Your task to perform on an android device: change notification settings in the gmail app Image 0: 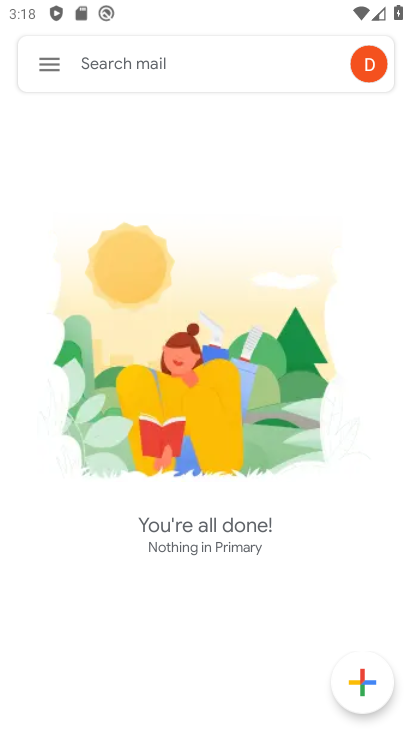
Step 0: click (39, 66)
Your task to perform on an android device: change notification settings in the gmail app Image 1: 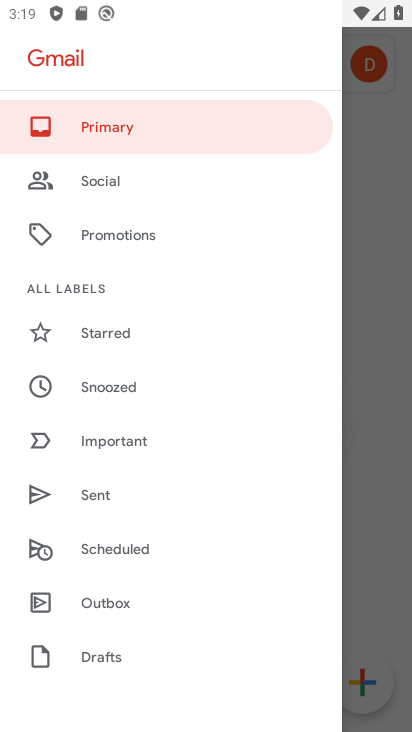
Step 1: drag from (174, 637) to (153, 347)
Your task to perform on an android device: change notification settings in the gmail app Image 2: 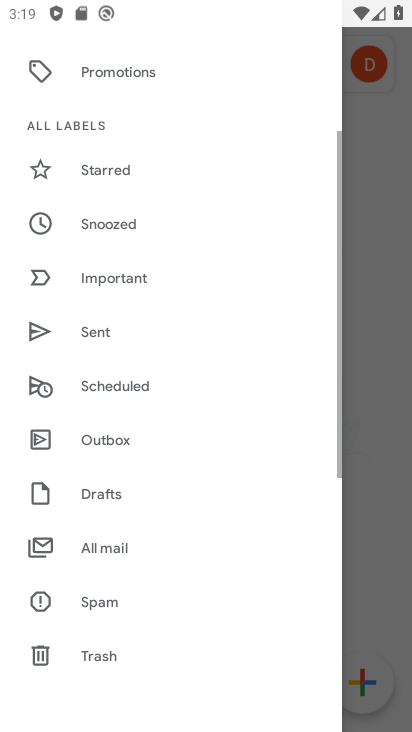
Step 2: drag from (214, 627) to (159, 197)
Your task to perform on an android device: change notification settings in the gmail app Image 3: 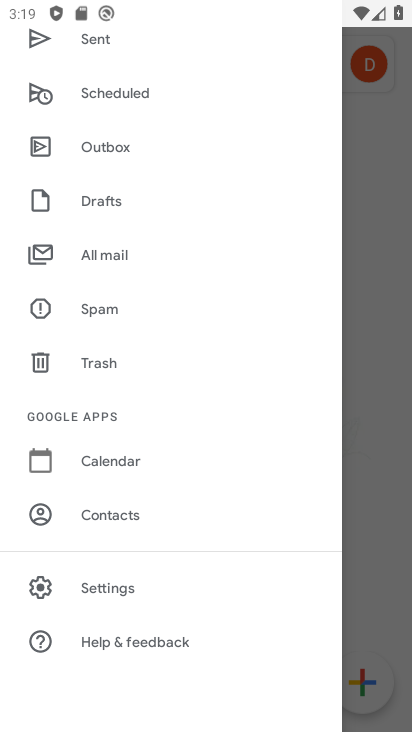
Step 3: click (114, 582)
Your task to perform on an android device: change notification settings in the gmail app Image 4: 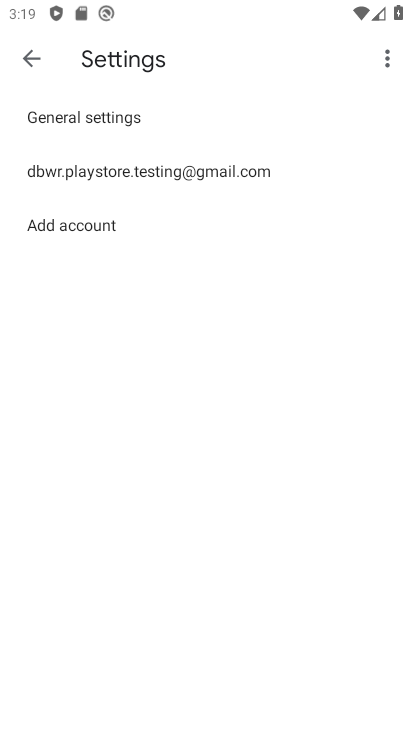
Step 4: click (126, 174)
Your task to perform on an android device: change notification settings in the gmail app Image 5: 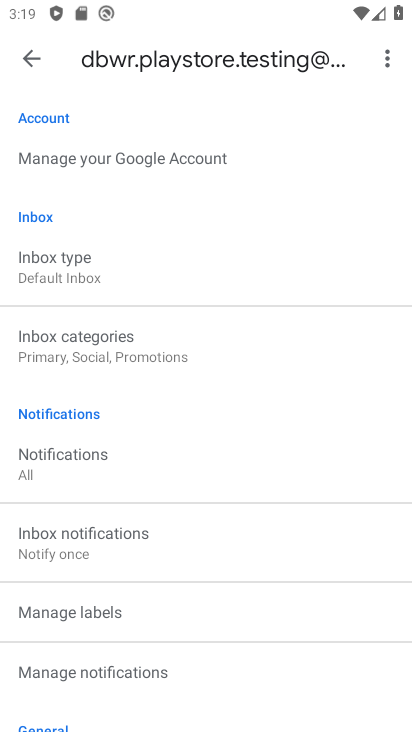
Step 5: click (52, 448)
Your task to perform on an android device: change notification settings in the gmail app Image 6: 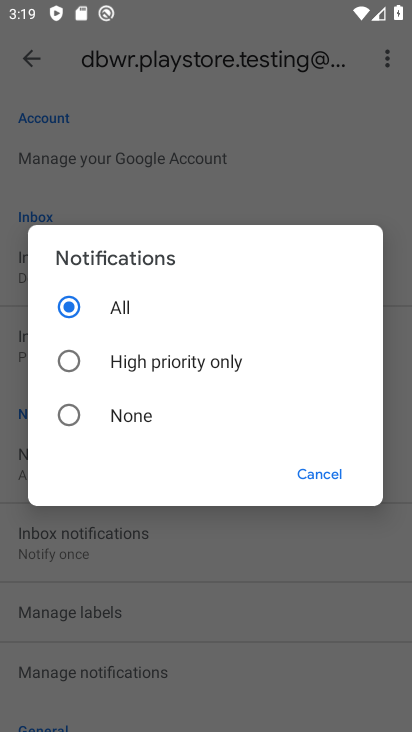
Step 6: click (66, 356)
Your task to perform on an android device: change notification settings in the gmail app Image 7: 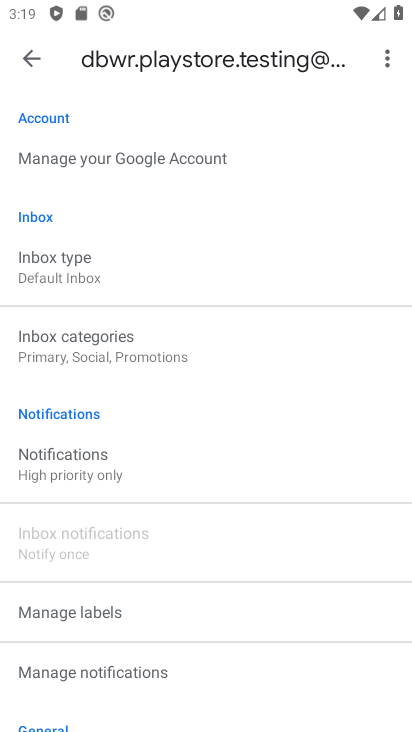
Step 7: task complete